Your task to perform on an android device: change the clock style Image 0: 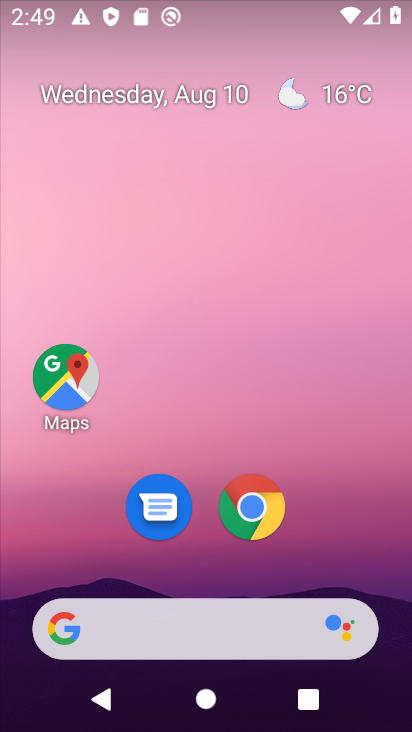
Step 0: drag from (326, 527) to (224, 0)
Your task to perform on an android device: change the clock style Image 1: 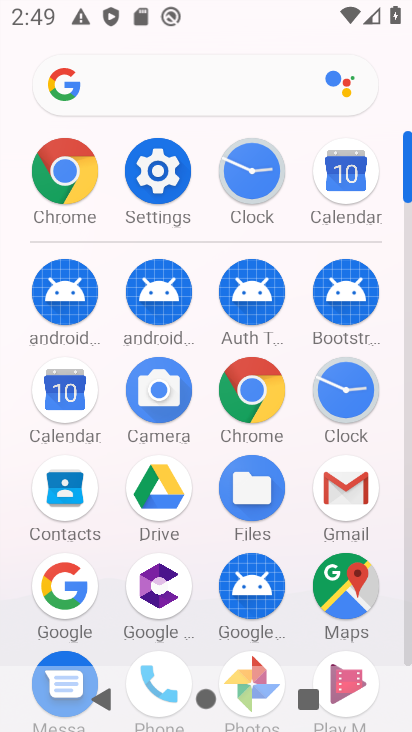
Step 1: click (354, 369)
Your task to perform on an android device: change the clock style Image 2: 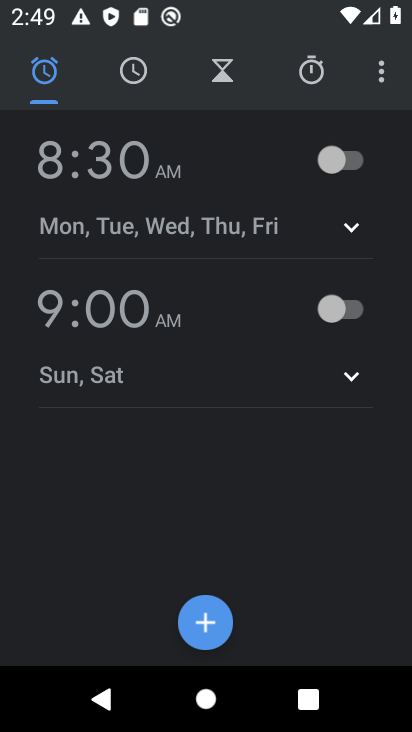
Step 2: click (380, 79)
Your task to perform on an android device: change the clock style Image 3: 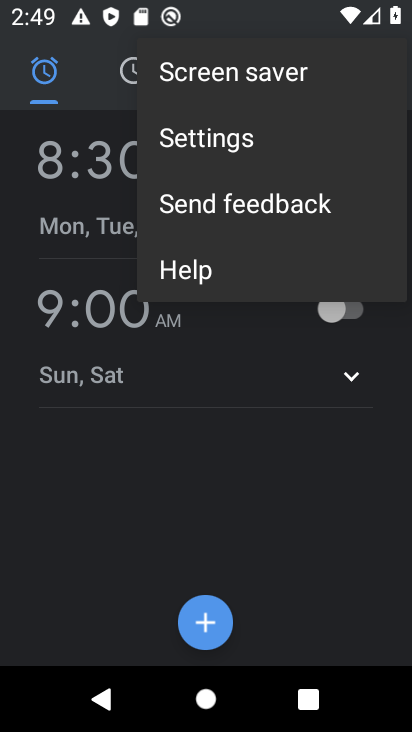
Step 3: click (247, 152)
Your task to perform on an android device: change the clock style Image 4: 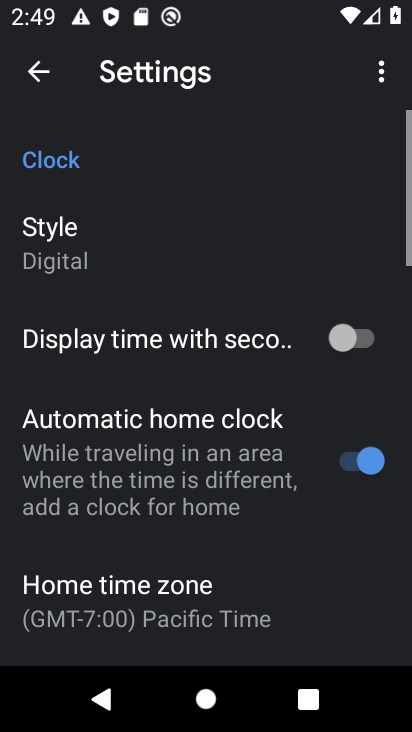
Step 4: click (52, 236)
Your task to perform on an android device: change the clock style Image 5: 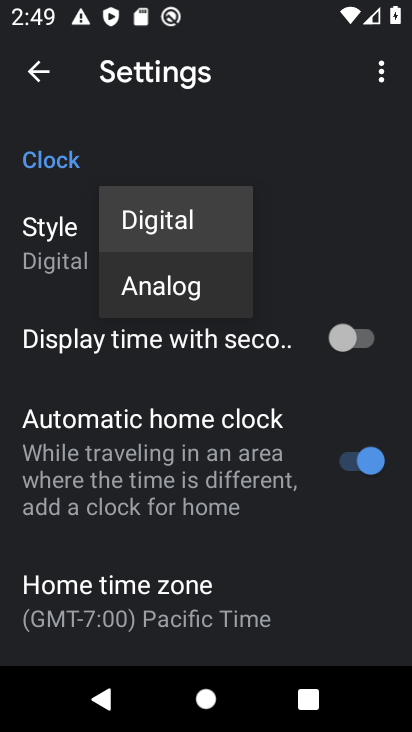
Step 5: click (138, 292)
Your task to perform on an android device: change the clock style Image 6: 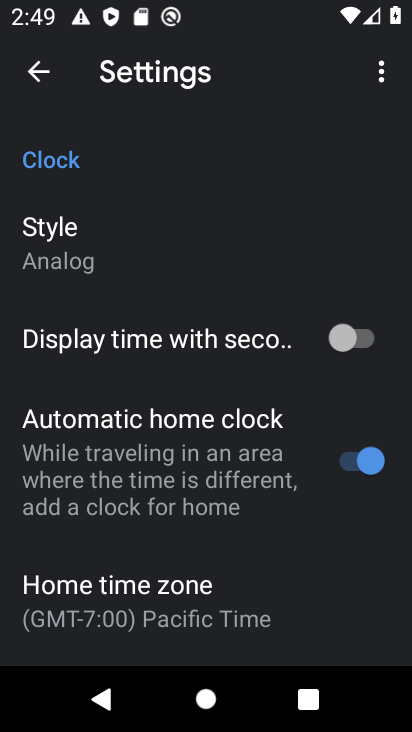
Step 6: task complete